Your task to perform on an android device: toggle sleep mode Image 0: 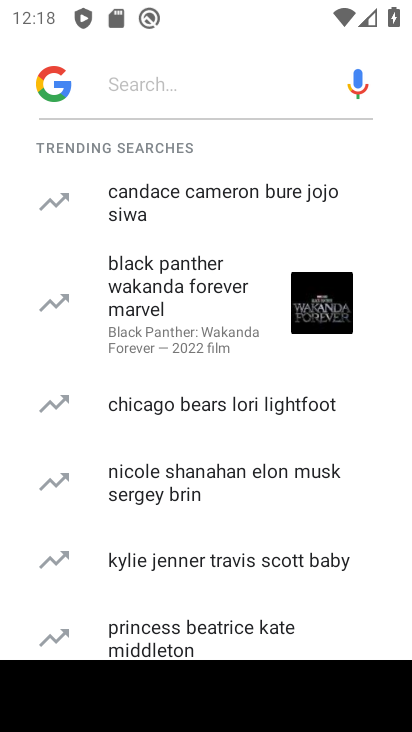
Step 0: press back button
Your task to perform on an android device: toggle sleep mode Image 1: 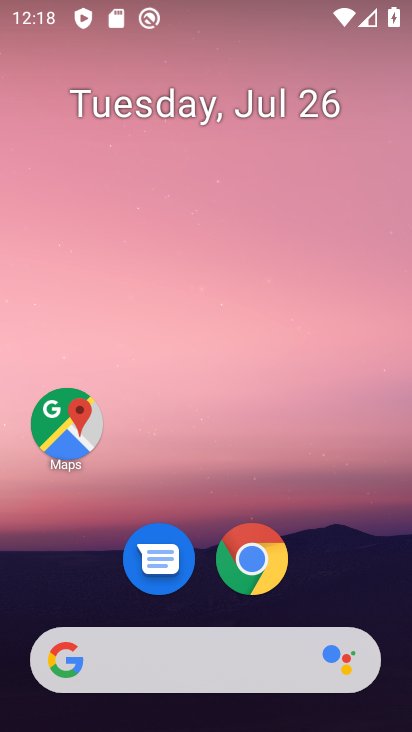
Step 1: drag from (126, 466) to (221, 6)
Your task to perform on an android device: toggle sleep mode Image 2: 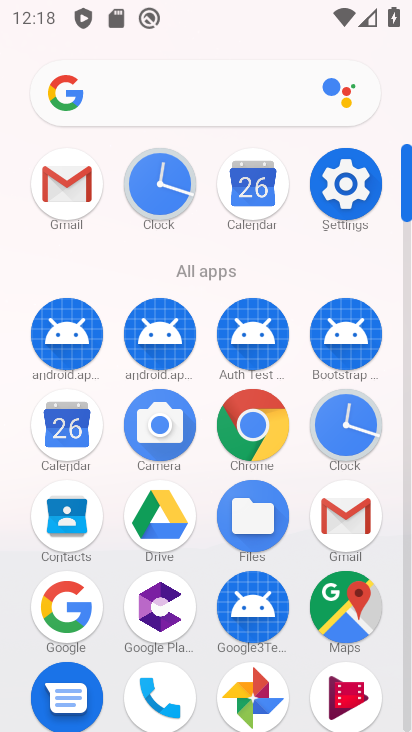
Step 2: click (337, 173)
Your task to perform on an android device: toggle sleep mode Image 3: 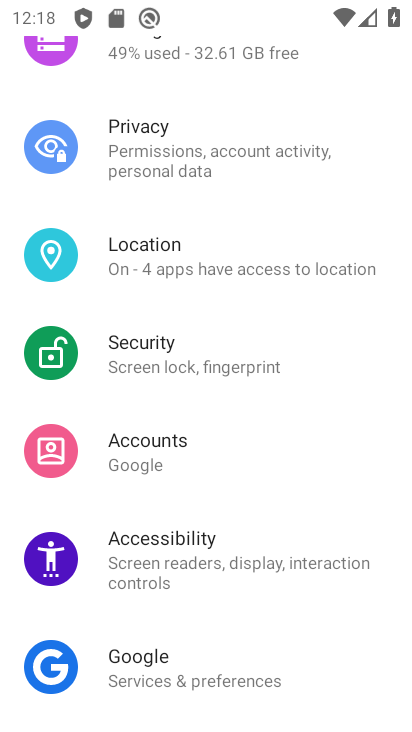
Step 3: drag from (186, 165) to (181, 643)
Your task to perform on an android device: toggle sleep mode Image 4: 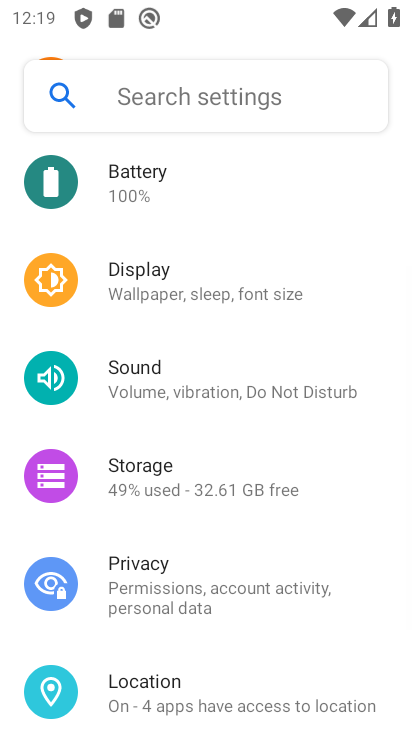
Step 4: click (181, 92)
Your task to perform on an android device: toggle sleep mode Image 5: 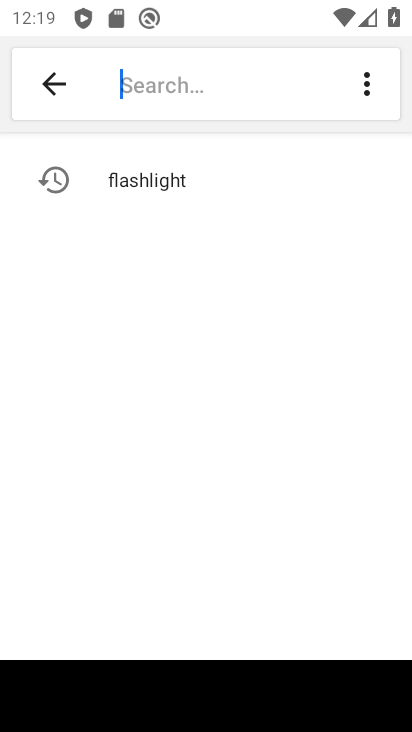
Step 5: type "sleepmode"
Your task to perform on an android device: toggle sleep mode Image 6: 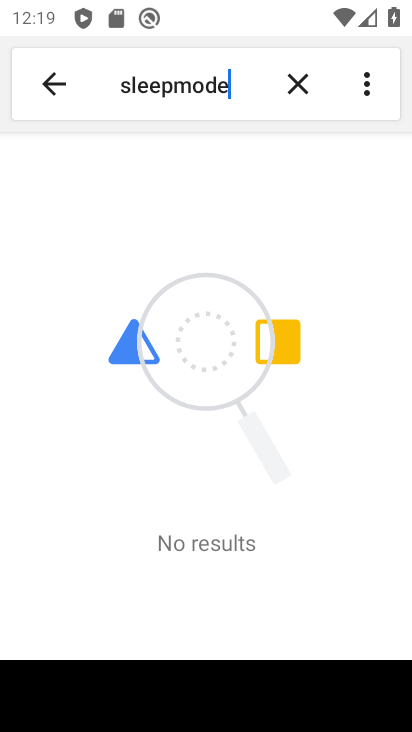
Step 6: task complete